Your task to perform on an android device: Open location settings Image 0: 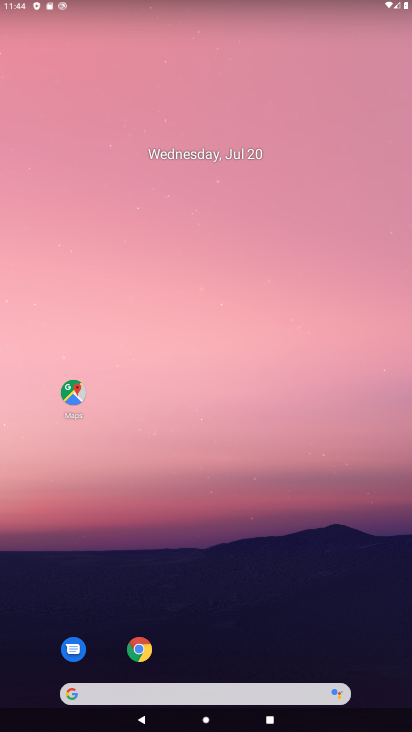
Step 0: drag from (230, 628) to (301, 4)
Your task to perform on an android device: Open location settings Image 1: 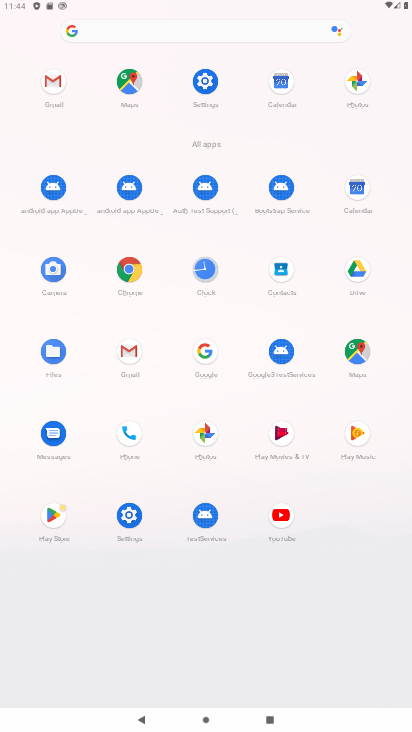
Step 1: click (120, 534)
Your task to perform on an android device: Open location settings Image 2: 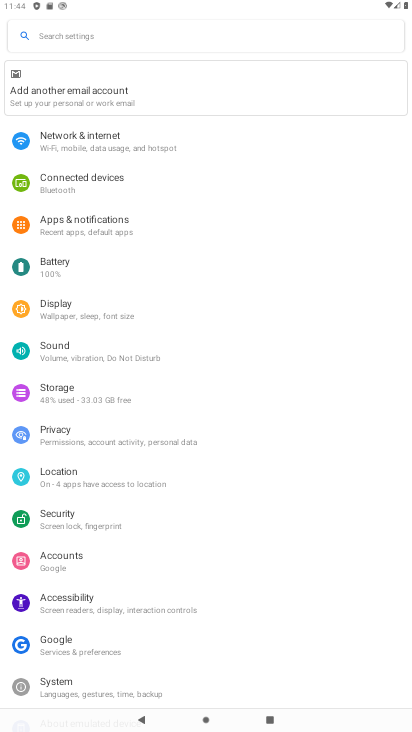
Step 2: click (64, 475)
Your task to perform on an android device: Open location settings Image 3: 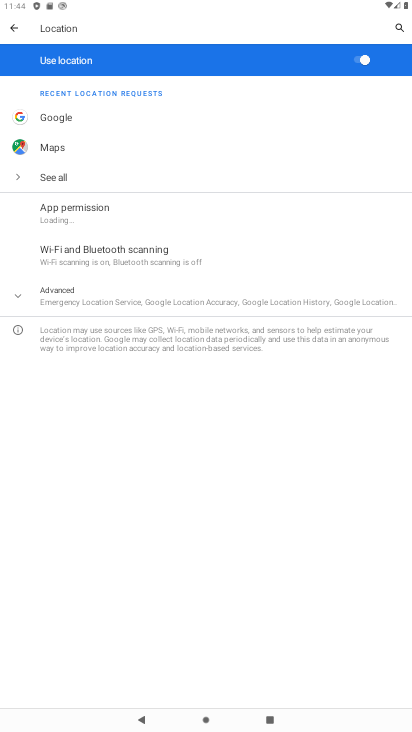
Step 3: task complete